Your task to perform on an android device: toggle translation in the chrome app Image 0: 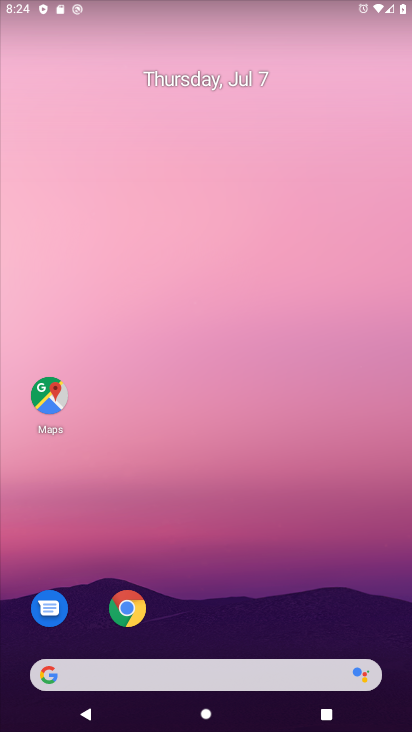
Step 0: drag from (224, 629) to (241, 218)
Your task to perform on an android device: toggle translation in the chrome app Image 1: 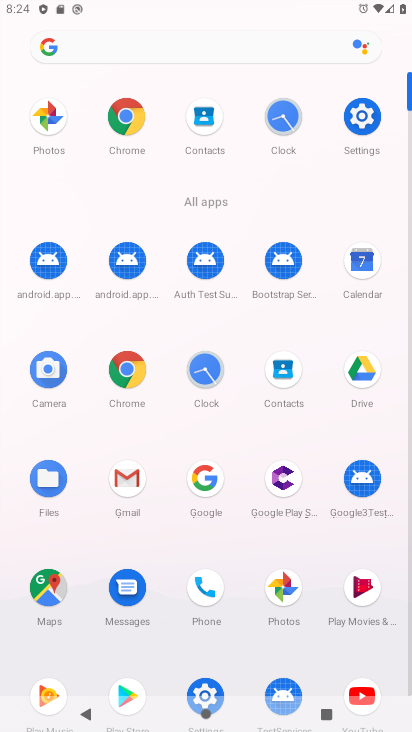
Step 1: click (125, 371)
Your task to perform on an android device: toggle translation in the chrome app Image 2: 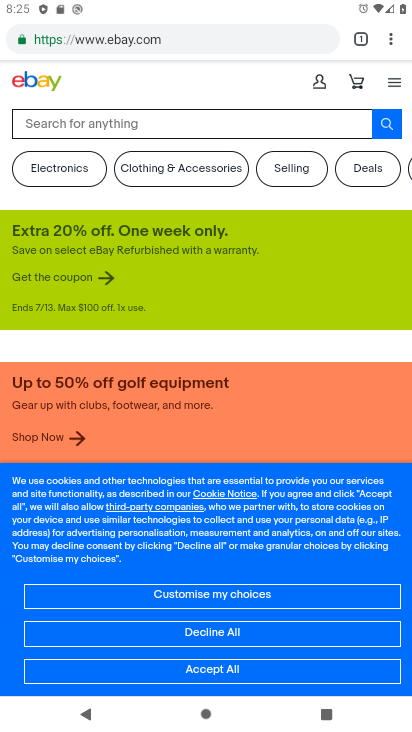
Step 2: click (390, 37)
Your task to perform on an android device: toggle translation in the chrome app Image 3: 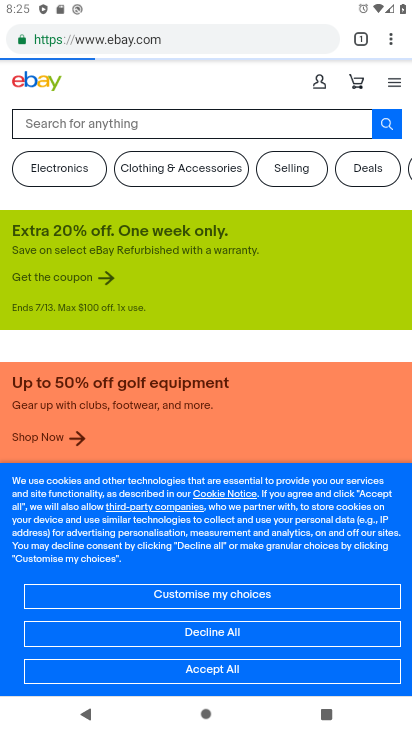
Step 3: click (390, 37)
Your task to perform on an android device: toggle translation in the chrome app Image 4: 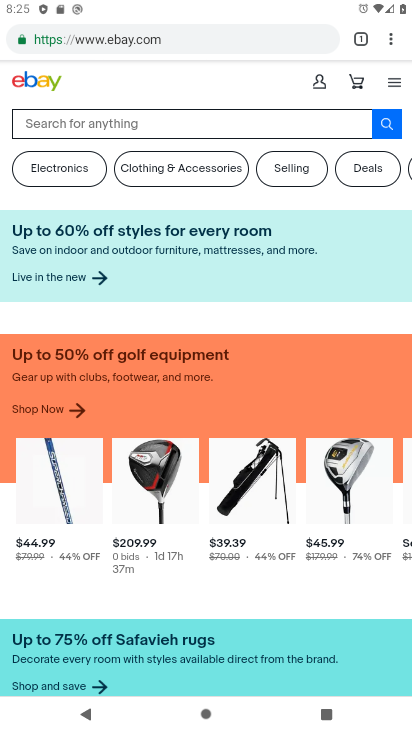
Step 4: click (393, 41)
Your task to perform on an android device: toggle translation in the chrome app Image 5: 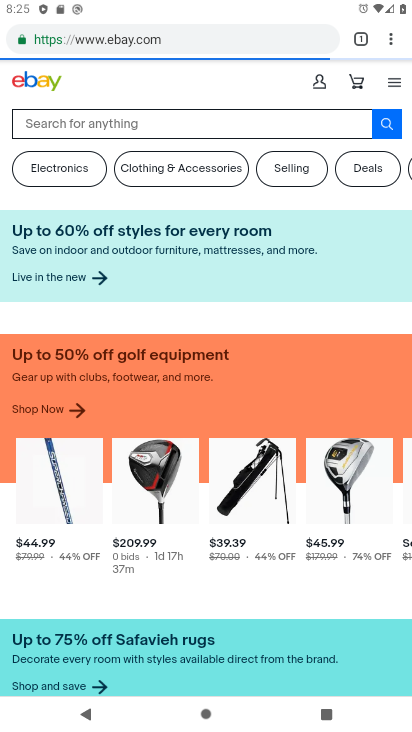
Step 5: click (390, 34)
Your task to perform on an android device: toggle translation in the chrome app Image 6: 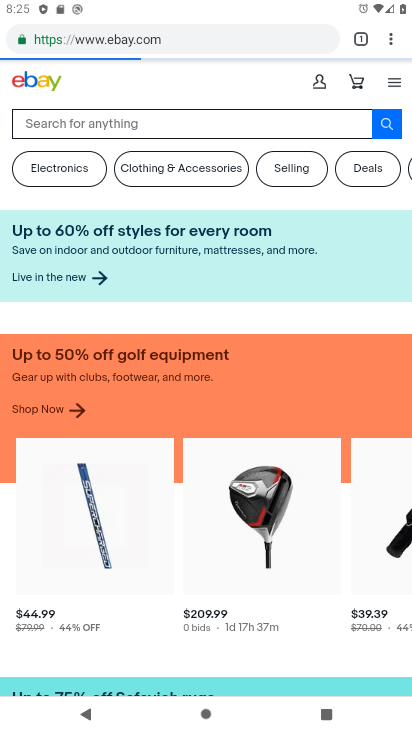
Step 6: click (390, 34)
Your task to perform on an android device: toggle translation in the chrome app Image 7: 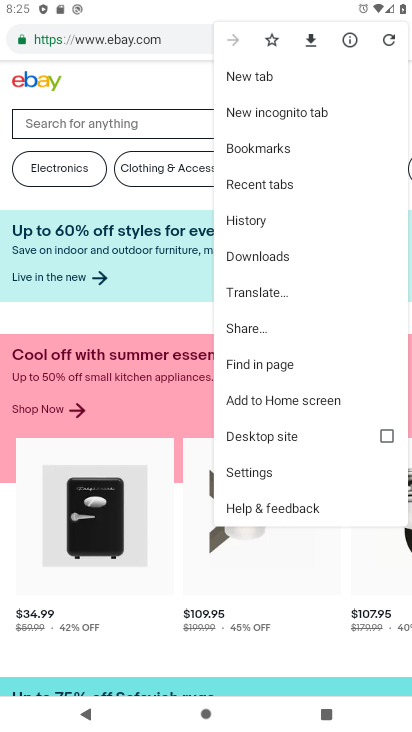
Step 7: click (256, 469)
Your task to perform on an android device: toggle translation in the chrome app Image 8: 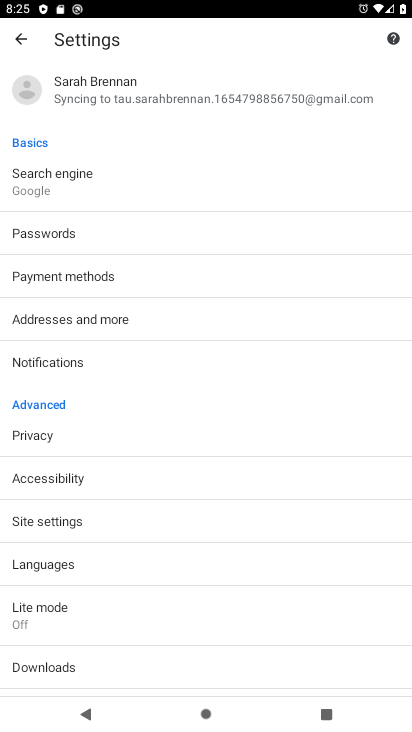
Step 8: drag from (53, 643) to (87, 263)
Your task to perform on an android device: toggle translation in the chrome app Image 9: 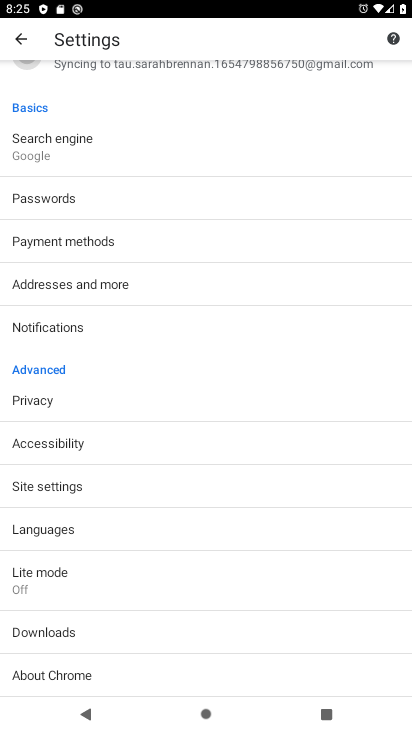
Step 9: click (53, 531)
Your task to perform on an android device: toggle translation in the chrome app Image 10: 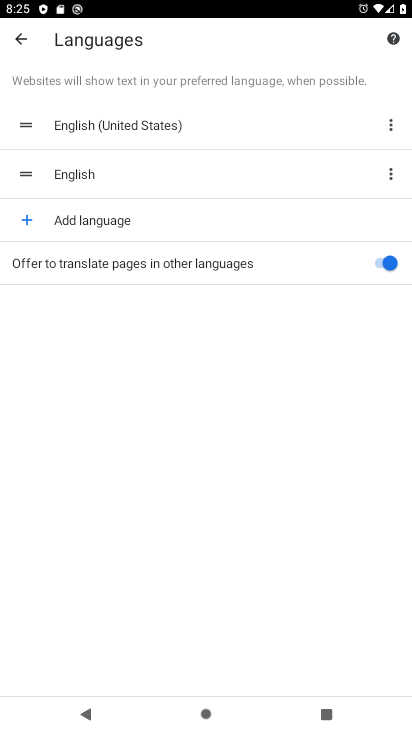
Step 10: click (374, 265)
Your task to perform on an android device: toggle translation in the chrome app Image 11: 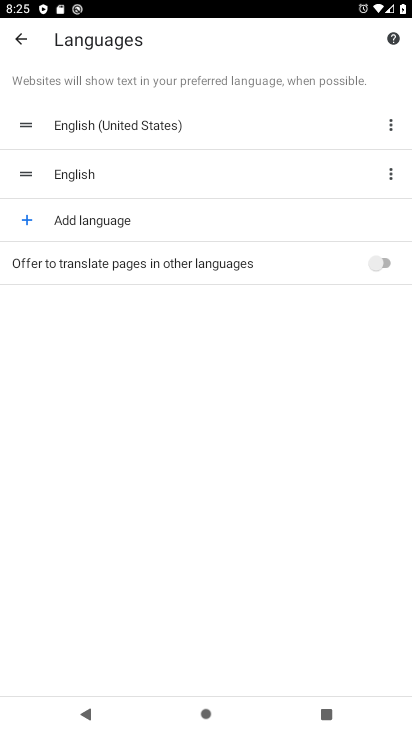
Step 11: task complete